Your task to perform on an android device: change notifications settings Image 0: 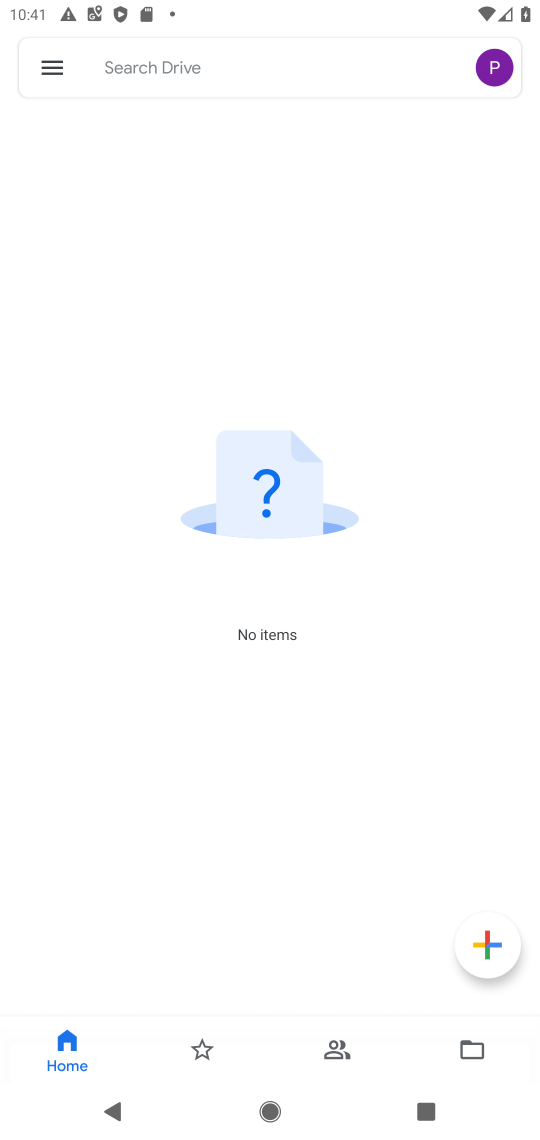
Step 0: press home button
Your task to perform on an android device: change notifications settings Image 1: 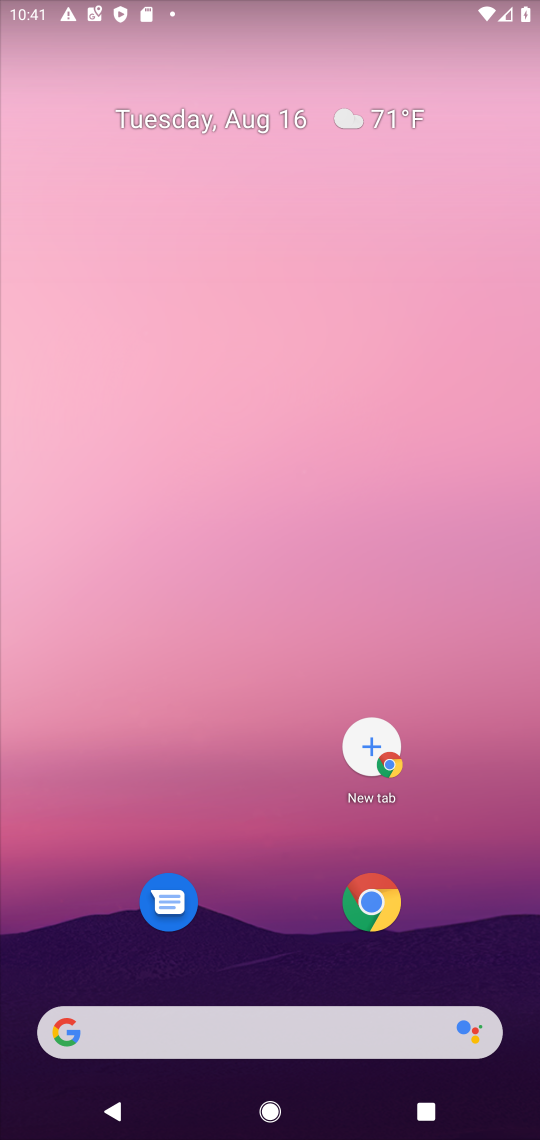
Step 1: drag from (280, 1031) to (282, 342)
Your task to perform on an android device: change notifications settings Image 2: 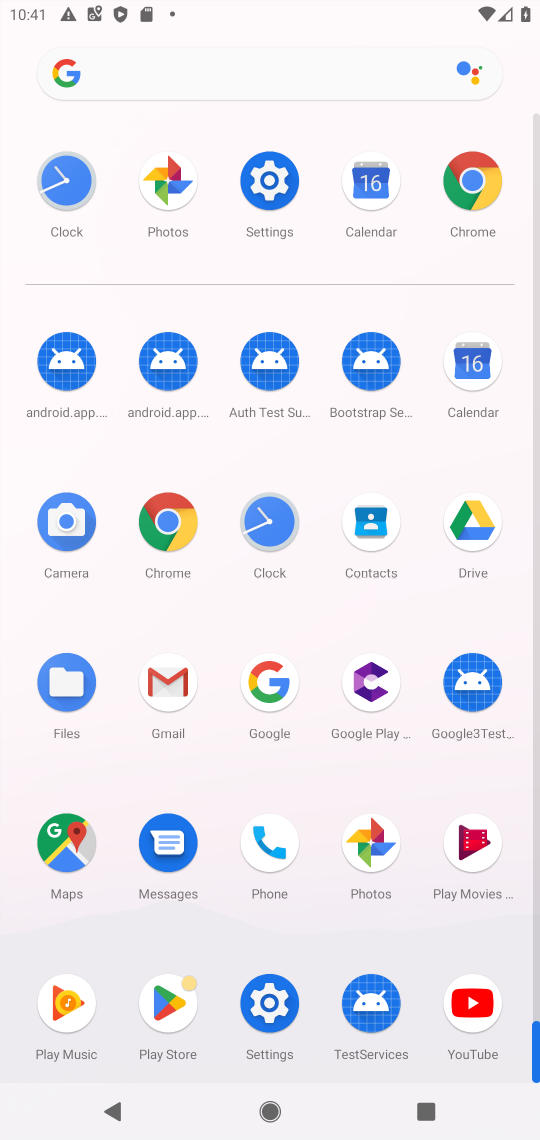
Step 2: click (286, 179)
Your task to perform on an android device: change notifications settings Image 3: 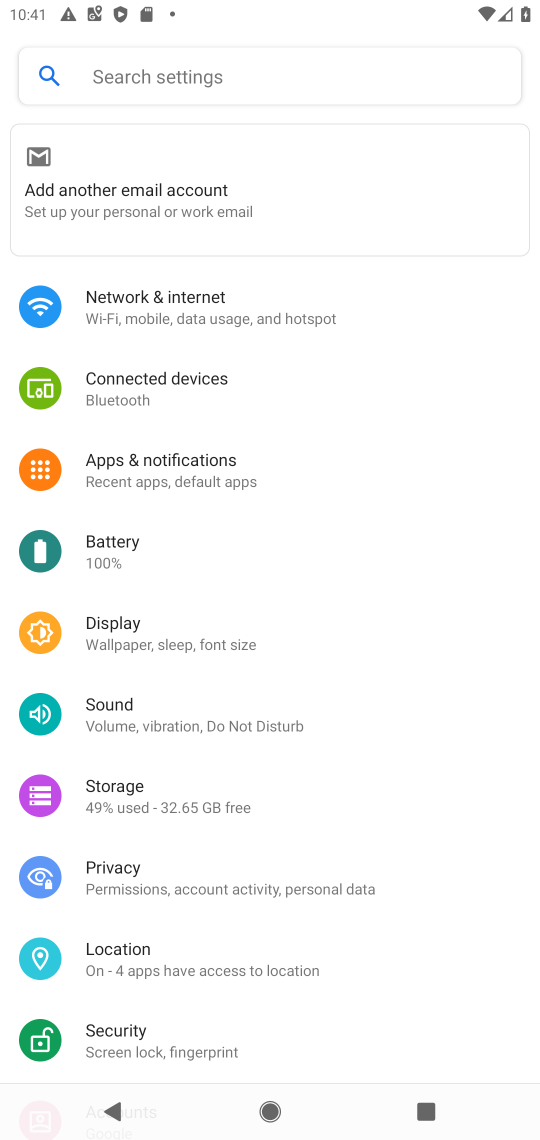
Step 3: click (187, 464)
Your task to perform on an android device: change notifications settings Image 4: 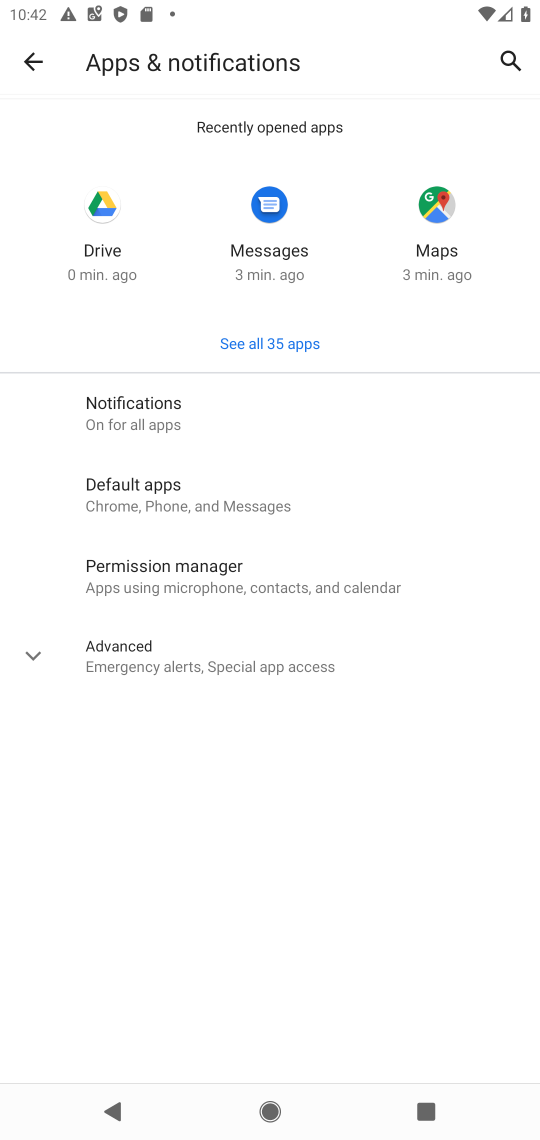
Step 4: click (119, 402)
Your task to perform on an android device: change notifications settings Image 5: 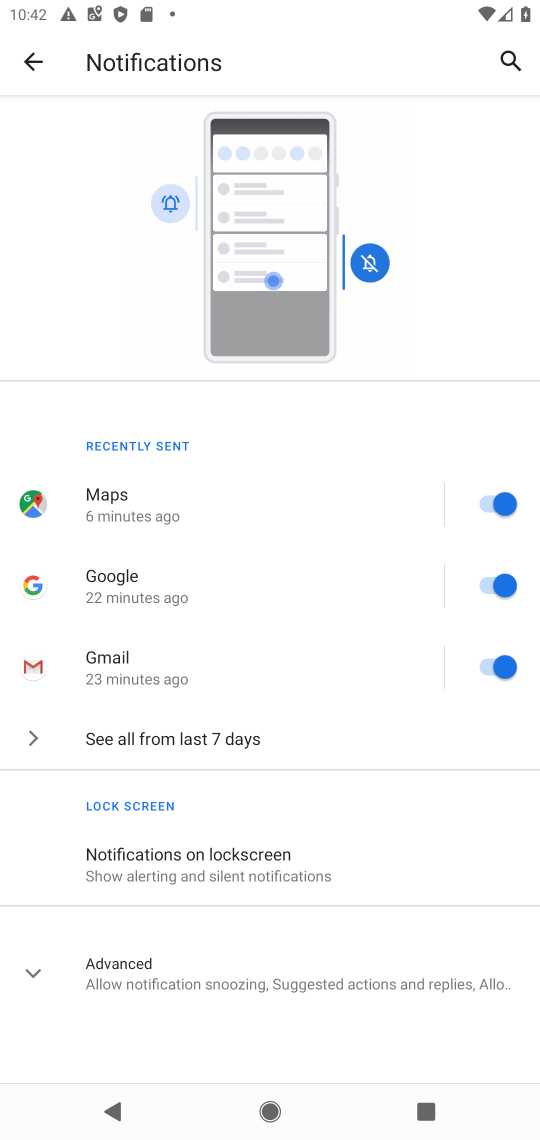
Step 5: click (497, 654)
Your task to perform on an android device: change notifications settings Image 6: 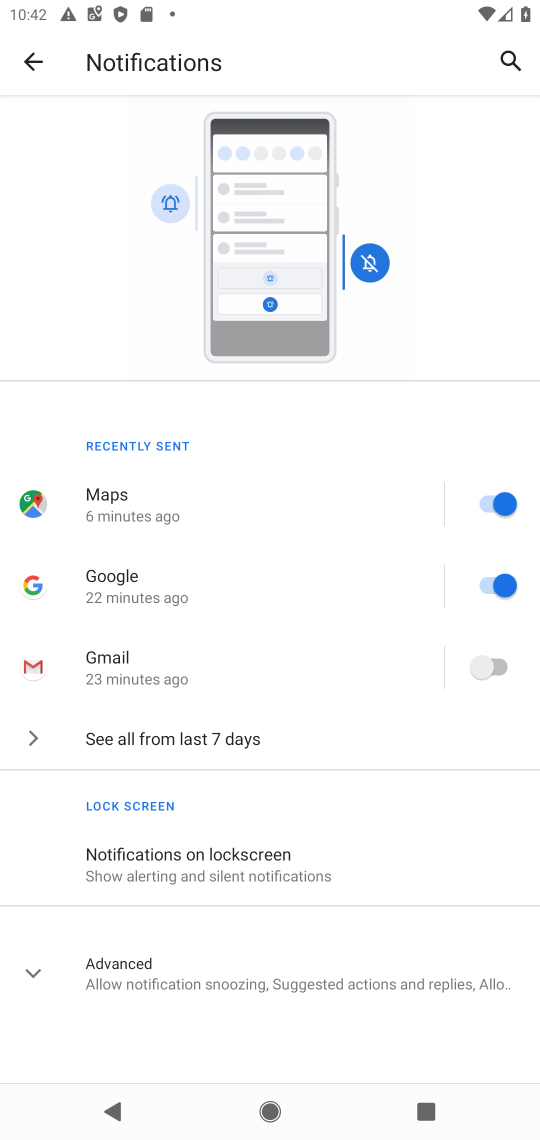
Step 6: click (485, 578)
Your task to perform on an android device: change notifications settings Image 7: 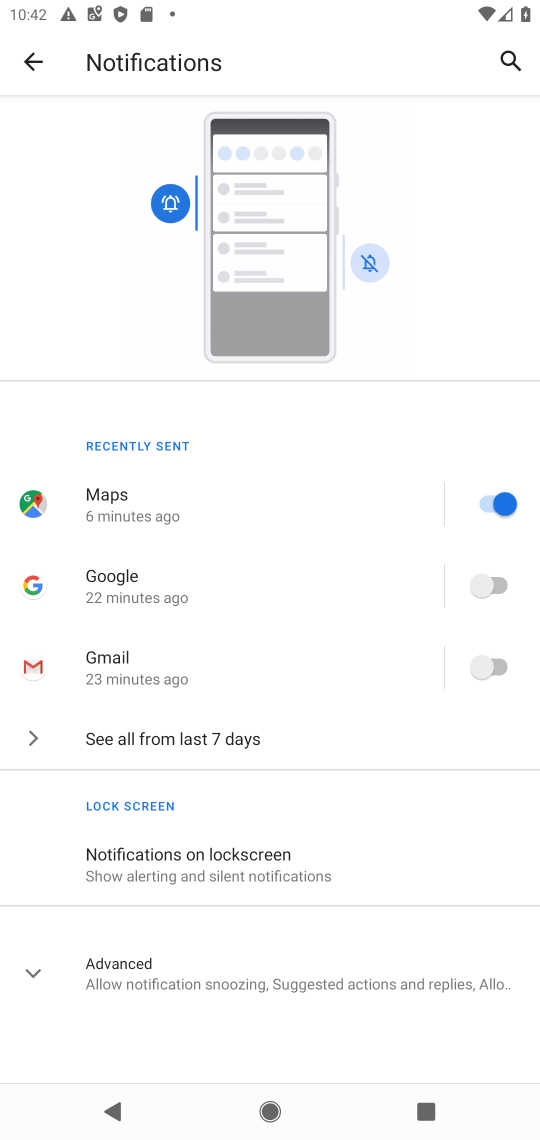
Step 7: click (483, 498)
Your task to perform on an android device: change notifications settings Image 8: 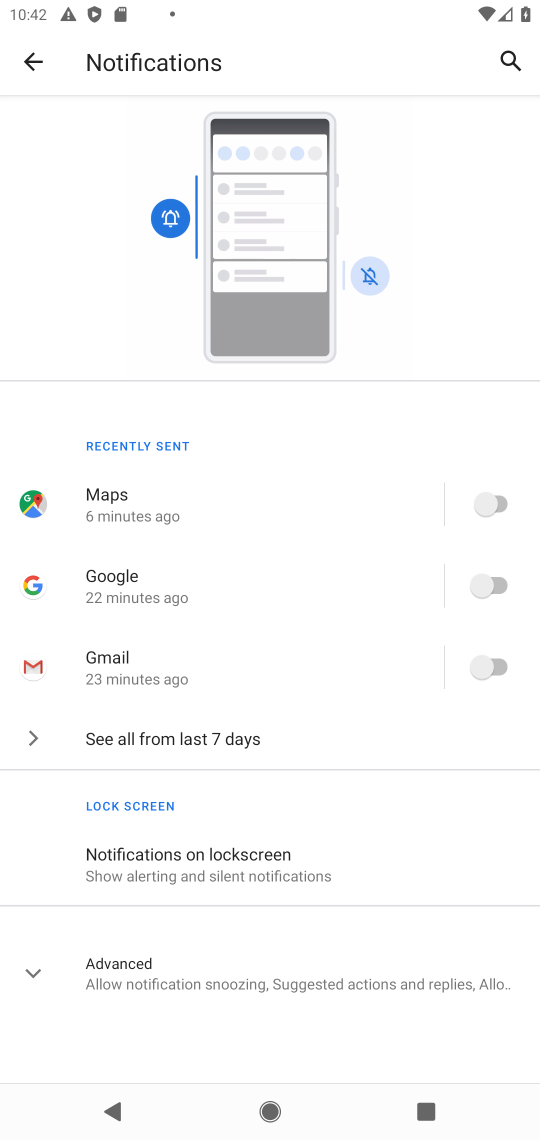
Step 8: task complete